Your task to perform on an android device: Search for vintage wall art on Etsy. Image 0: 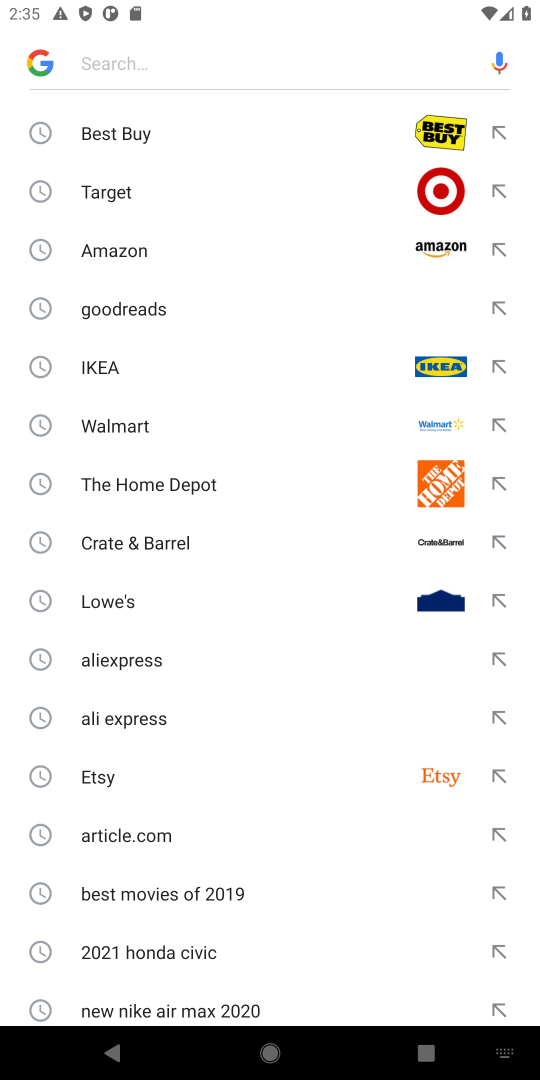
Step 0: press home button
Your task to perform on an android device: Search for vintage wall art on Etsy. Image 1: 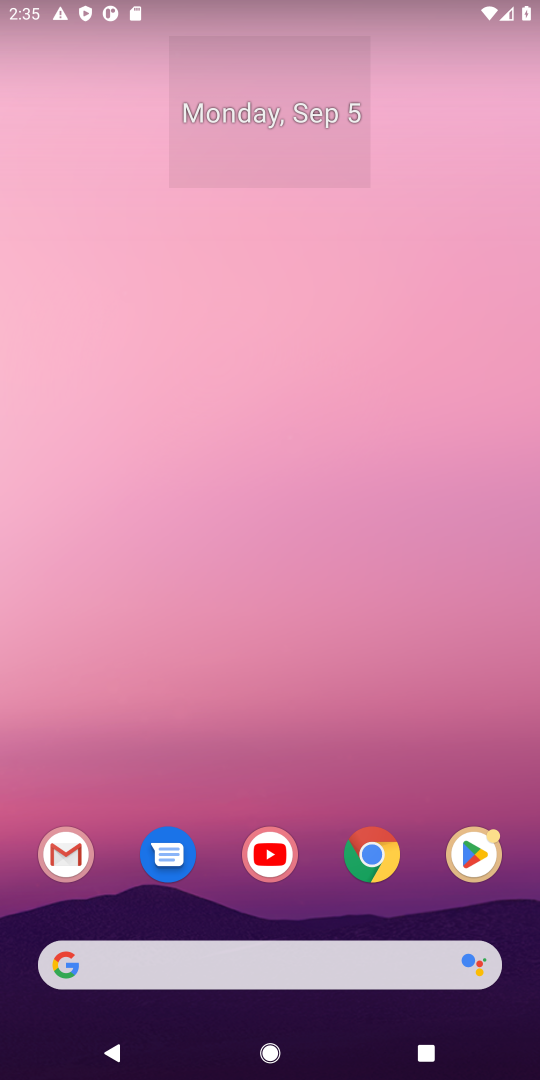
Step 1: click (298, 961)
Your task to perform on an android device: Search for vintage wall art on Etsy. Image 2: 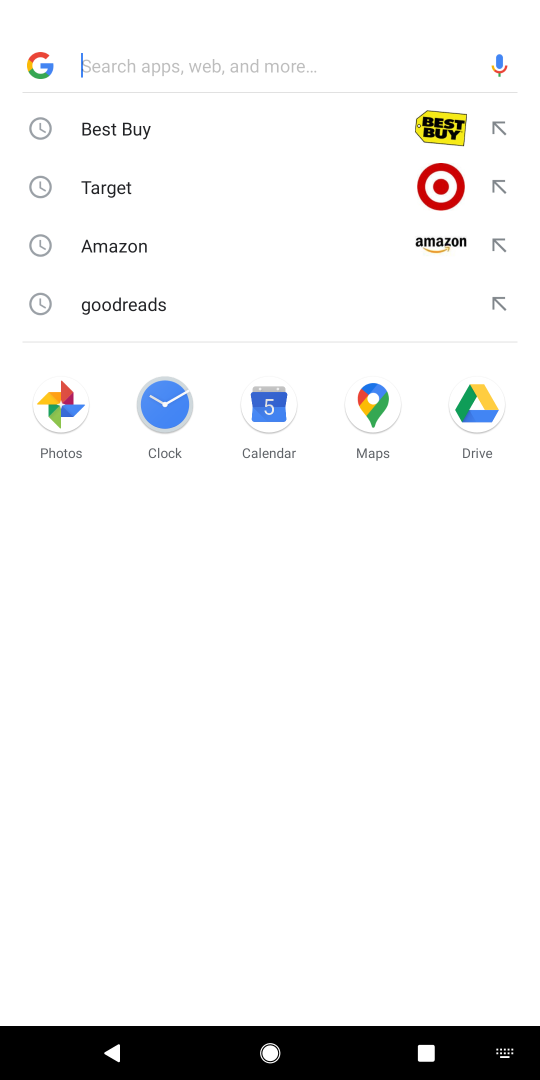
Step 2: type "etsy"
Your task to perform on an android device: Search for vintage wall art on Etsy. Image 3: 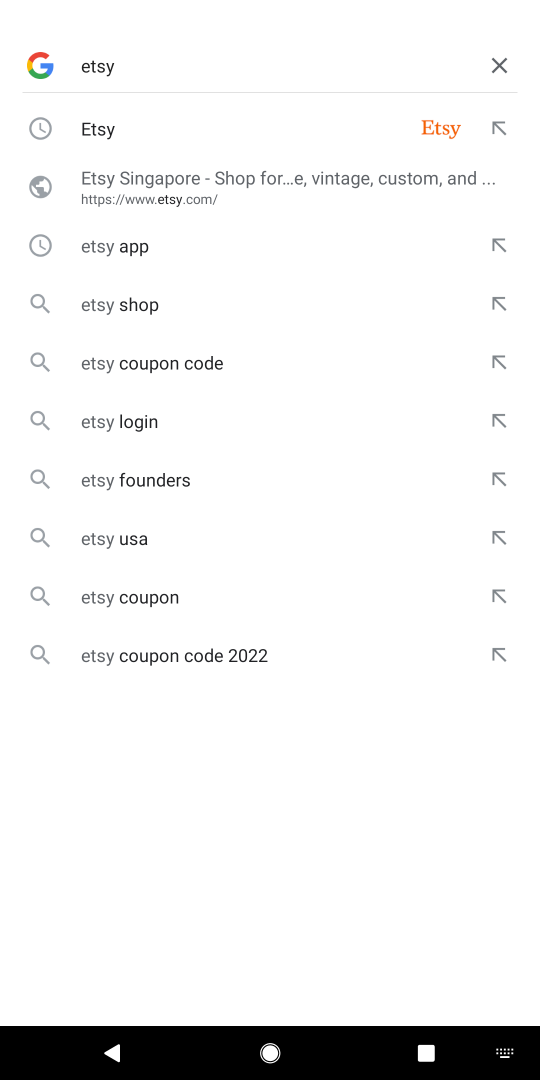
Step 3: press enter
Your task to perform on an android device: Search for vintage wall art on Etsy. Image 4: 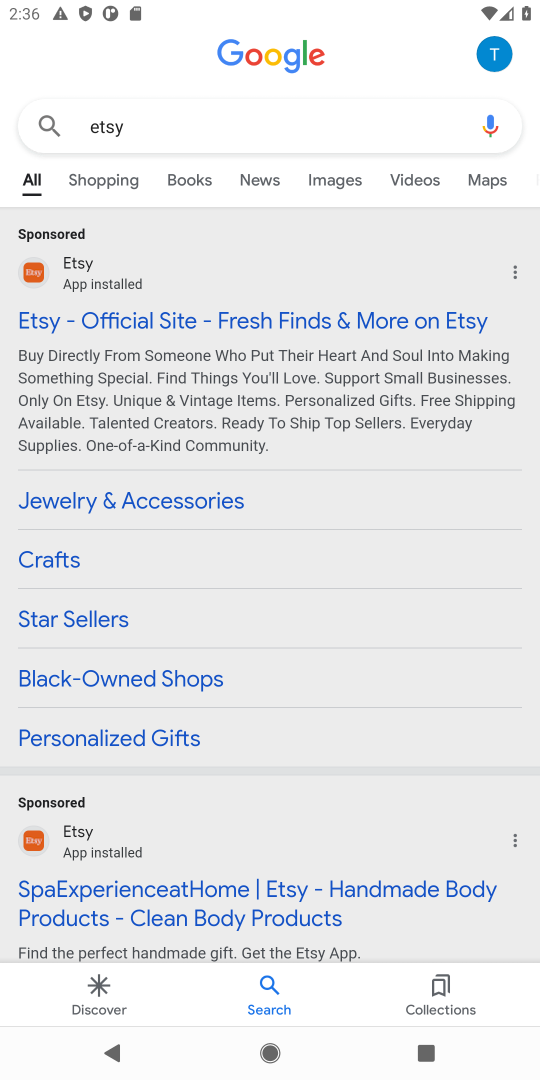
Step 4: click (246, 317)
Your task to perform on an android device: Search for vintage wall art on Etsy. Image 5: 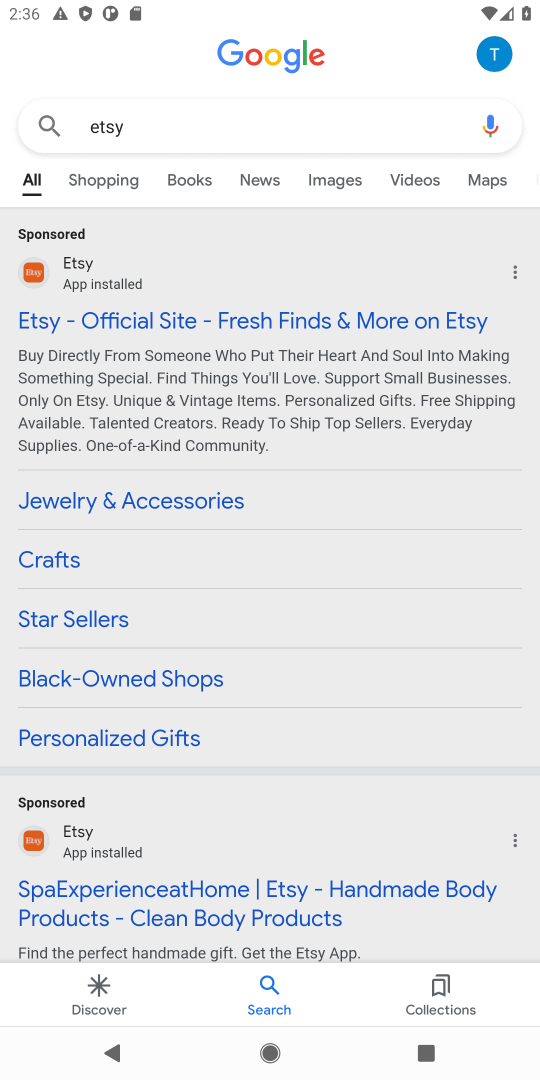
Step 5: click (195, 329)
Your task to perform on an android device: Search for vintage wall art on Etsy. Image 6: 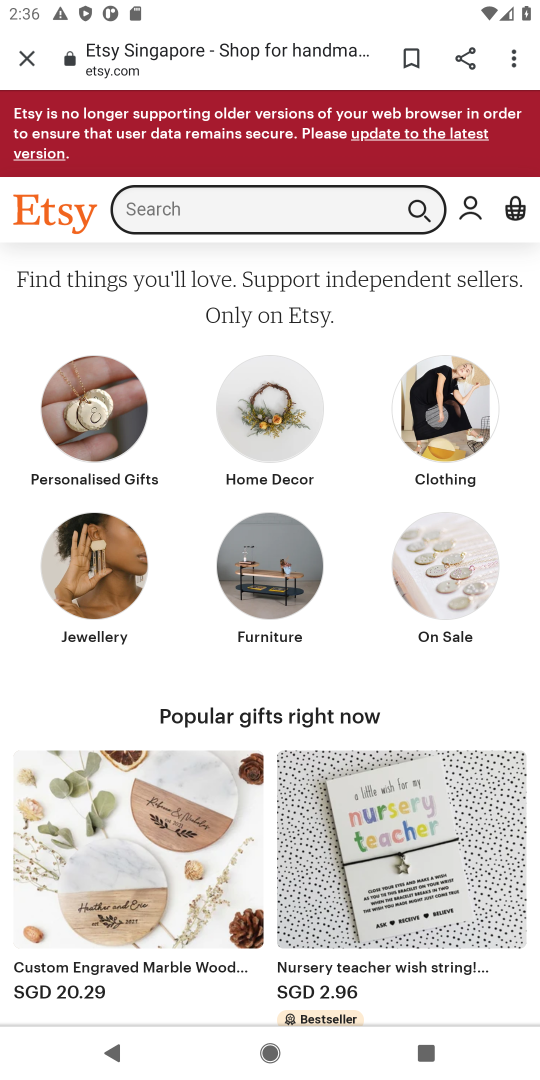
Step 6: click (139, 208)
Your task to perform on an android device: Search for vintage wall art on Etsy. Image 7: 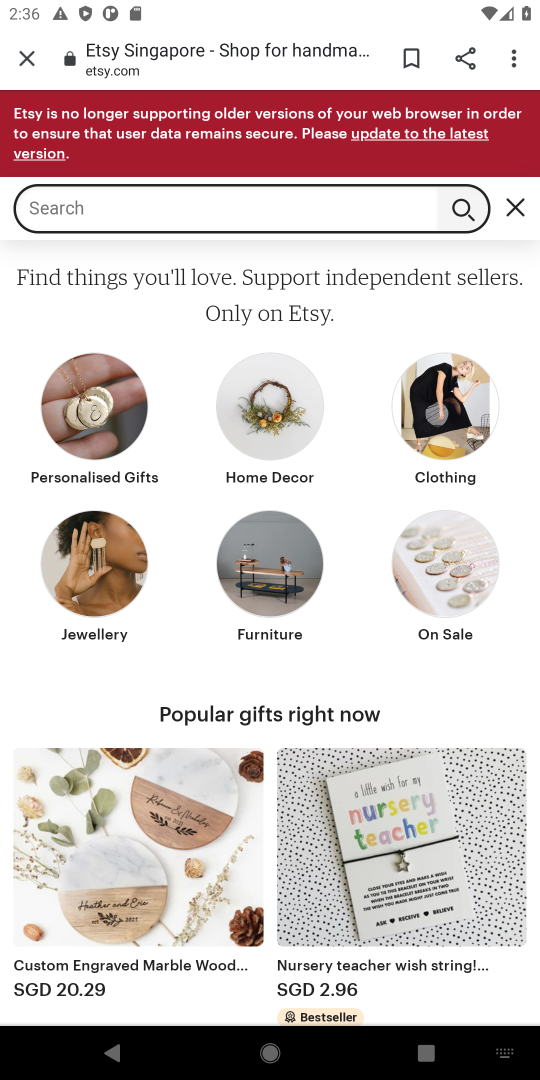
Step 7: type "vintage wall art"
Your task to perform on an android device: Search for vintage wall art on Etsy. Image 8: 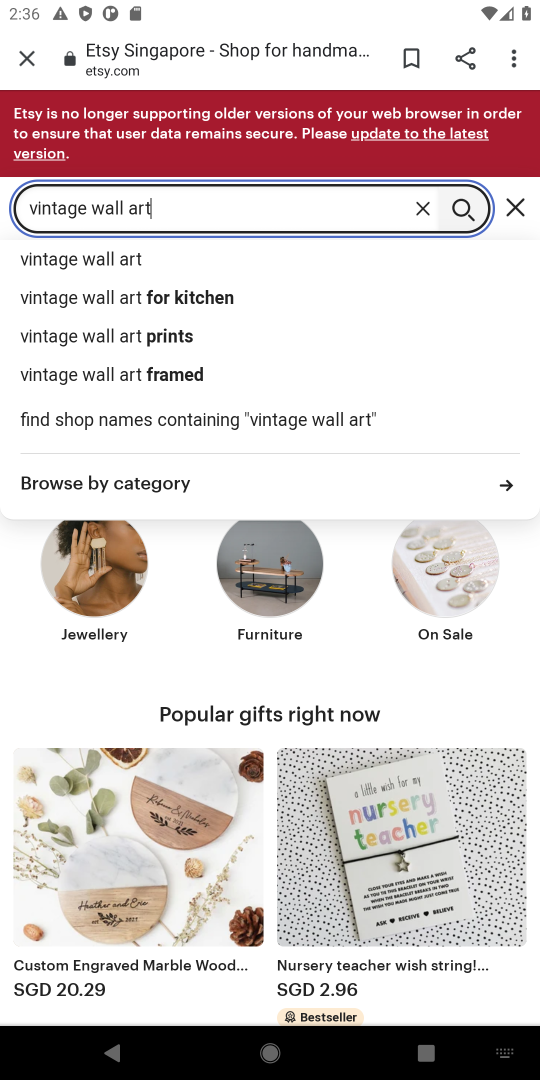
Step 8: click (124, 248)
Your task to perform on an android device: Search for vintage wall art on Etsy. Image 9: 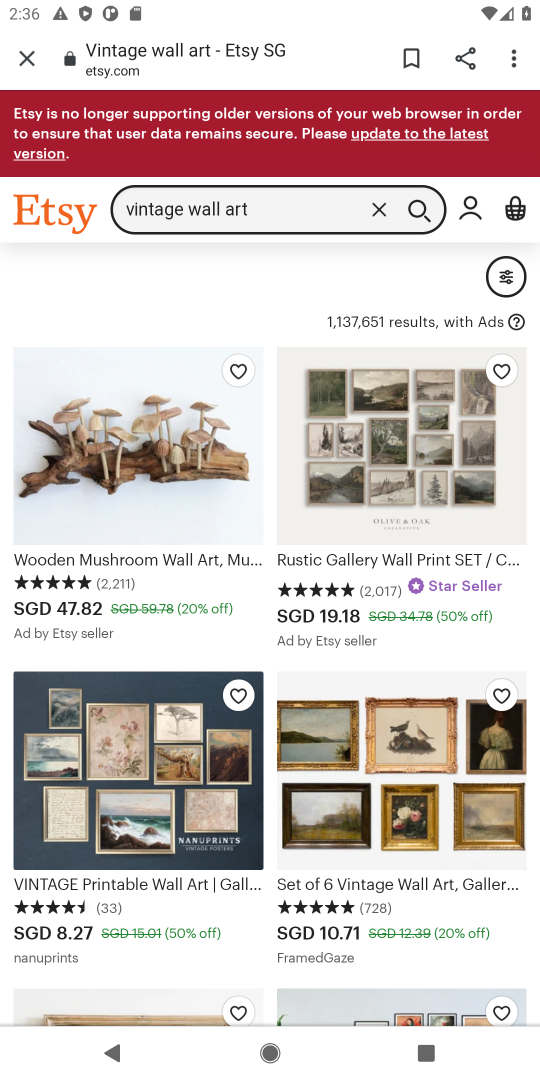
Step 9: task complete